Your task to perform on an android device: Search for sushi restaurants on Maps Image 0: 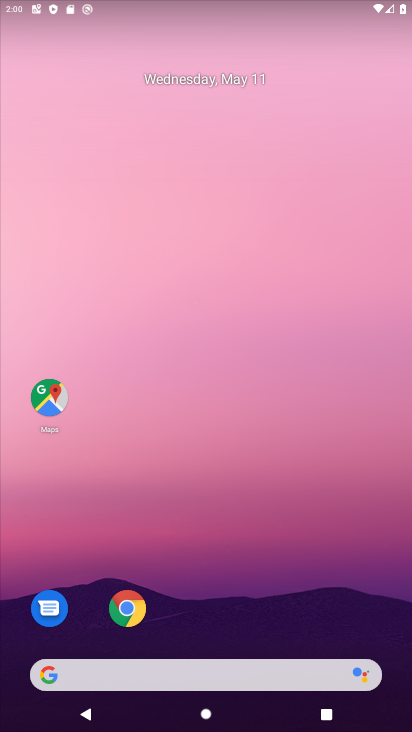
Step 0: click (35, 392)
Your task to perform on an android device: Search for sushi restaurants on Maps Image 1: 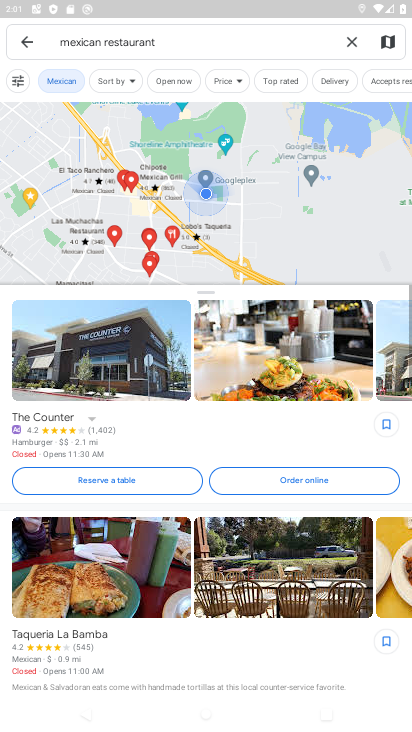
Step 1: click (201, 37)
Your task to perform on an android device: Search for sushi restaurants on Maps Image 2: 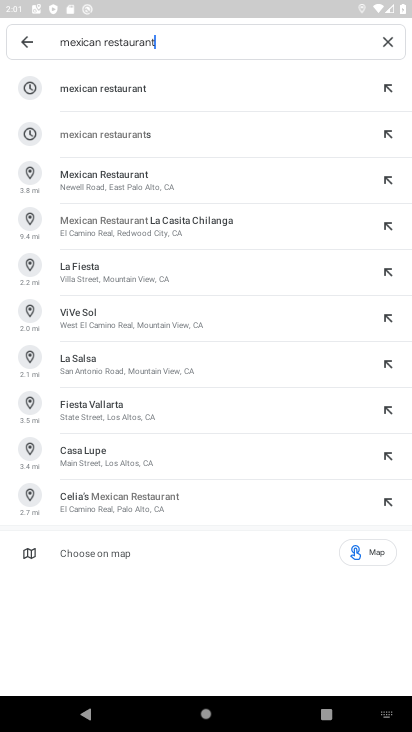
Step 2: click (99, 35)
Your task to perform on an android device: Search for sushi restaurants on Maps Image 3: 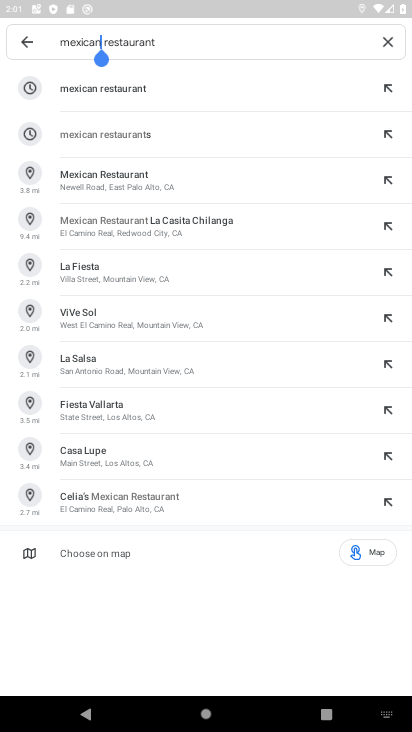
Step 3: click (385, 32)
Your task to perform on an android device: Search for sushi restaurants on Maps Image 4: 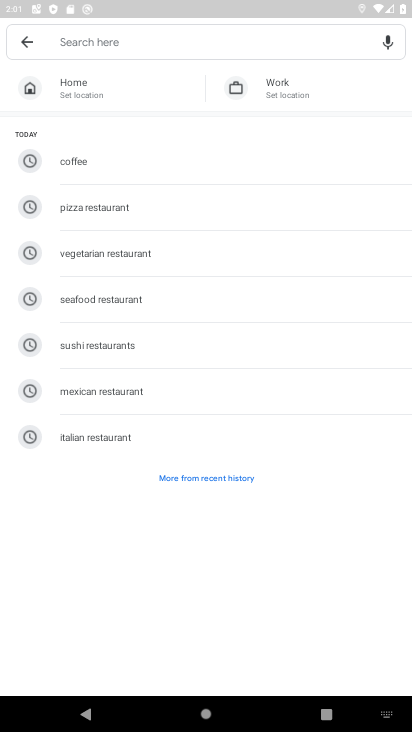
Step 4: click (152, 349)
Your task to perform on an android device: Search for sushi restaurants on Maps Image 5: 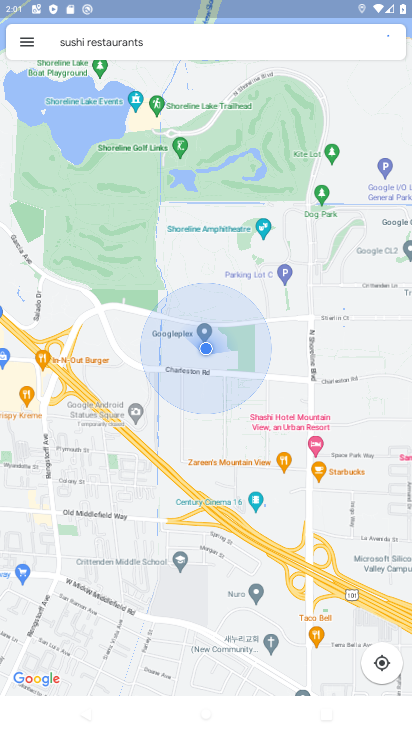
Step 5: task complete